Your task to perform on an android device: How big is a giraffe? Image 0: 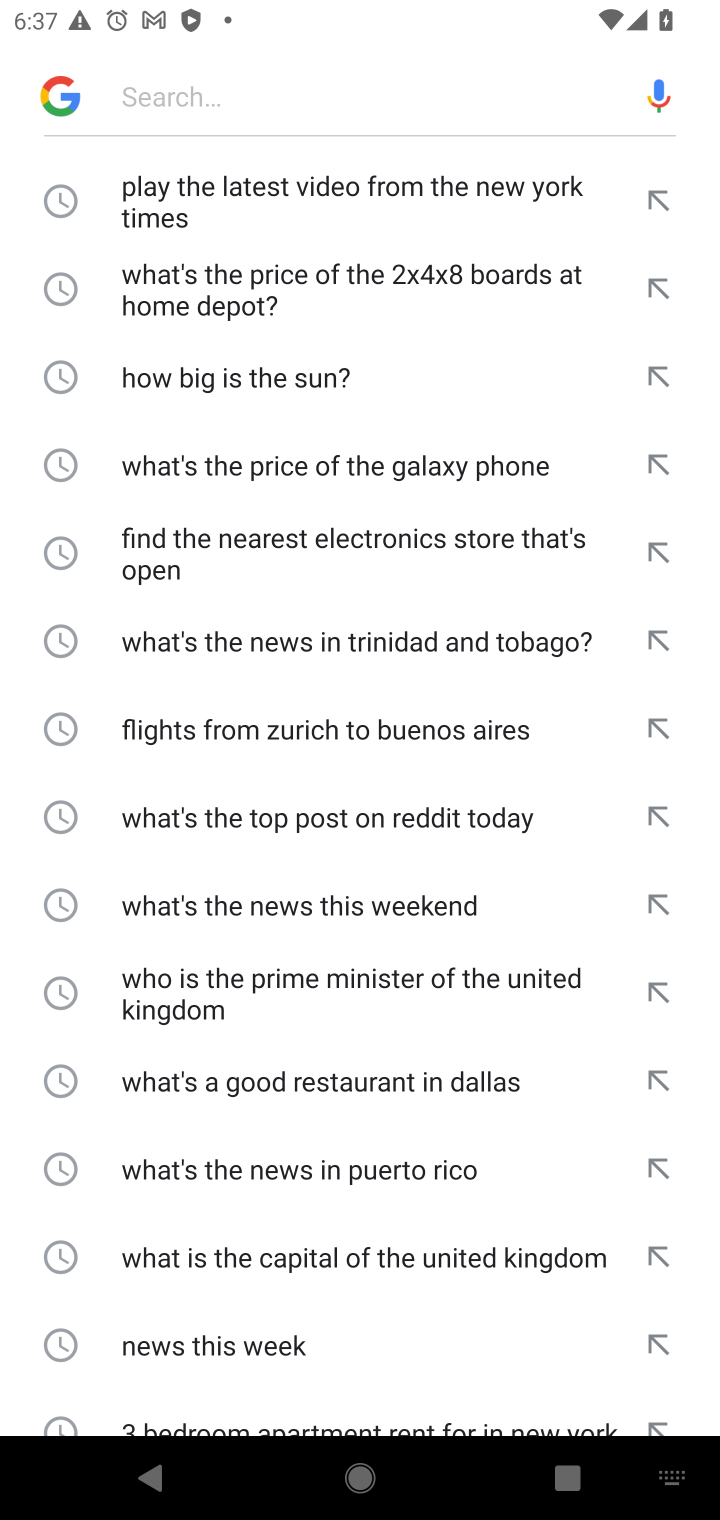
Step 0: press home button
Your task to perform on an android device: How big is a giraffe? Image 1: 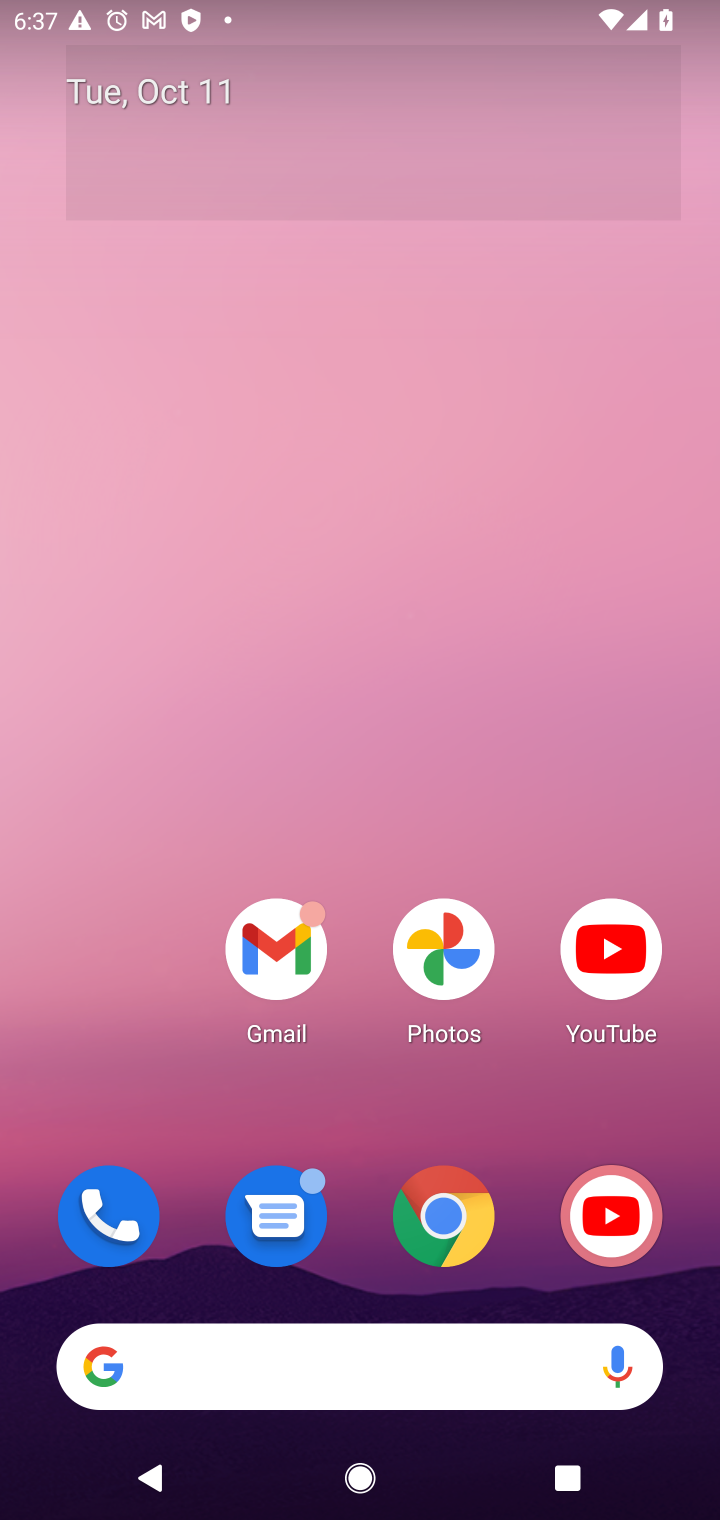
Step 1: click (429, 1250)
Your task to perform on an android device: How big is a giraffe? Image 2: 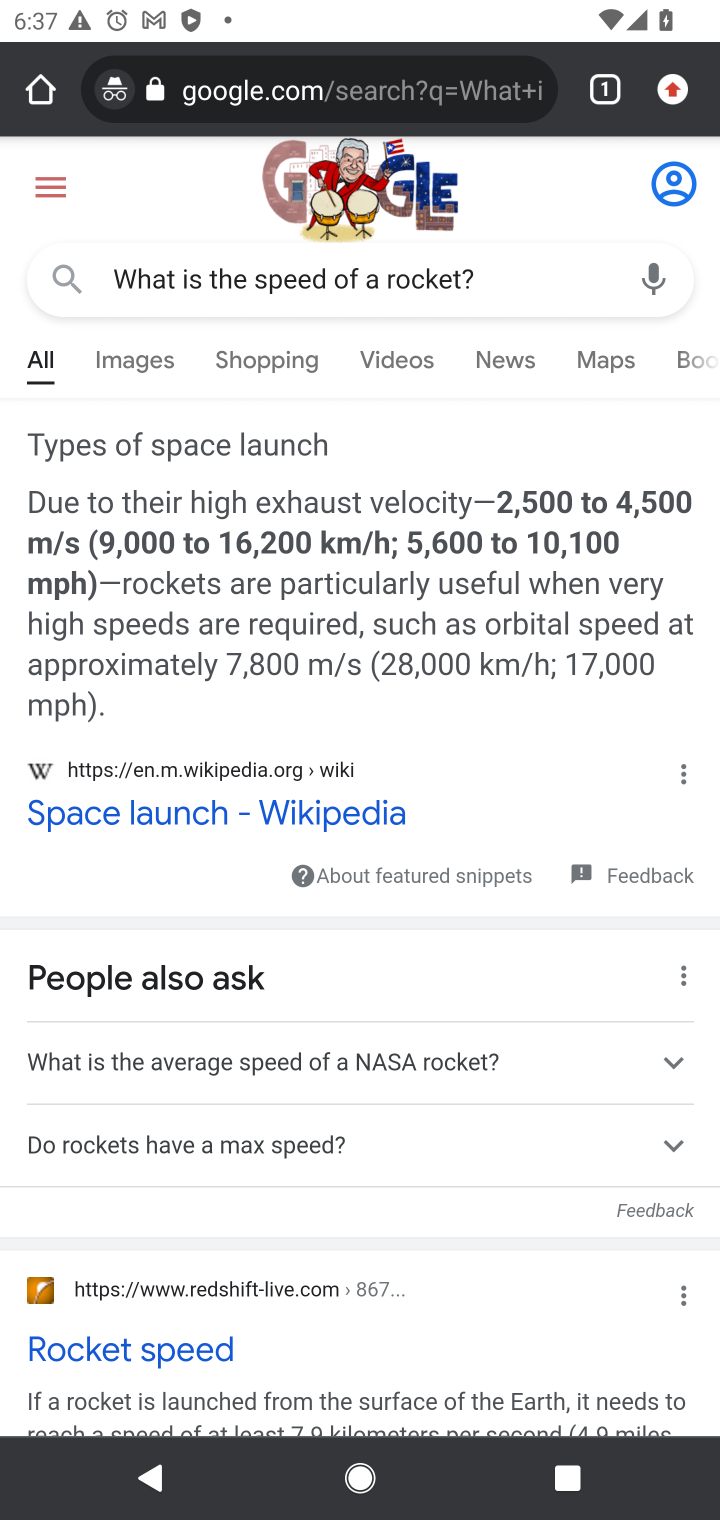
Step 2: click (502, 275)
Your task to perform on an android device: How big is a giraffe? Image 3: 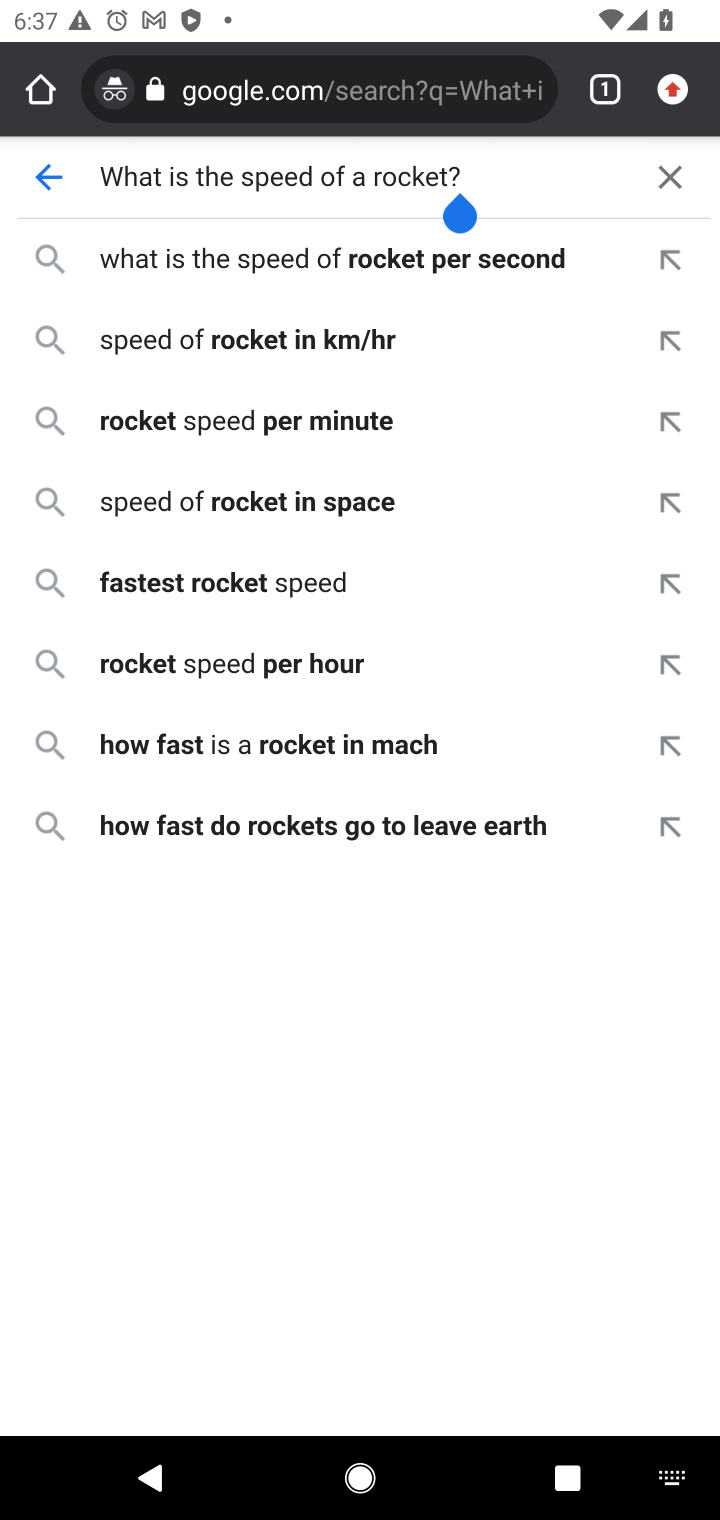
Step 3: click (677, 185)
Your task to perform on an android device: How big is a giraffe? Image 4: 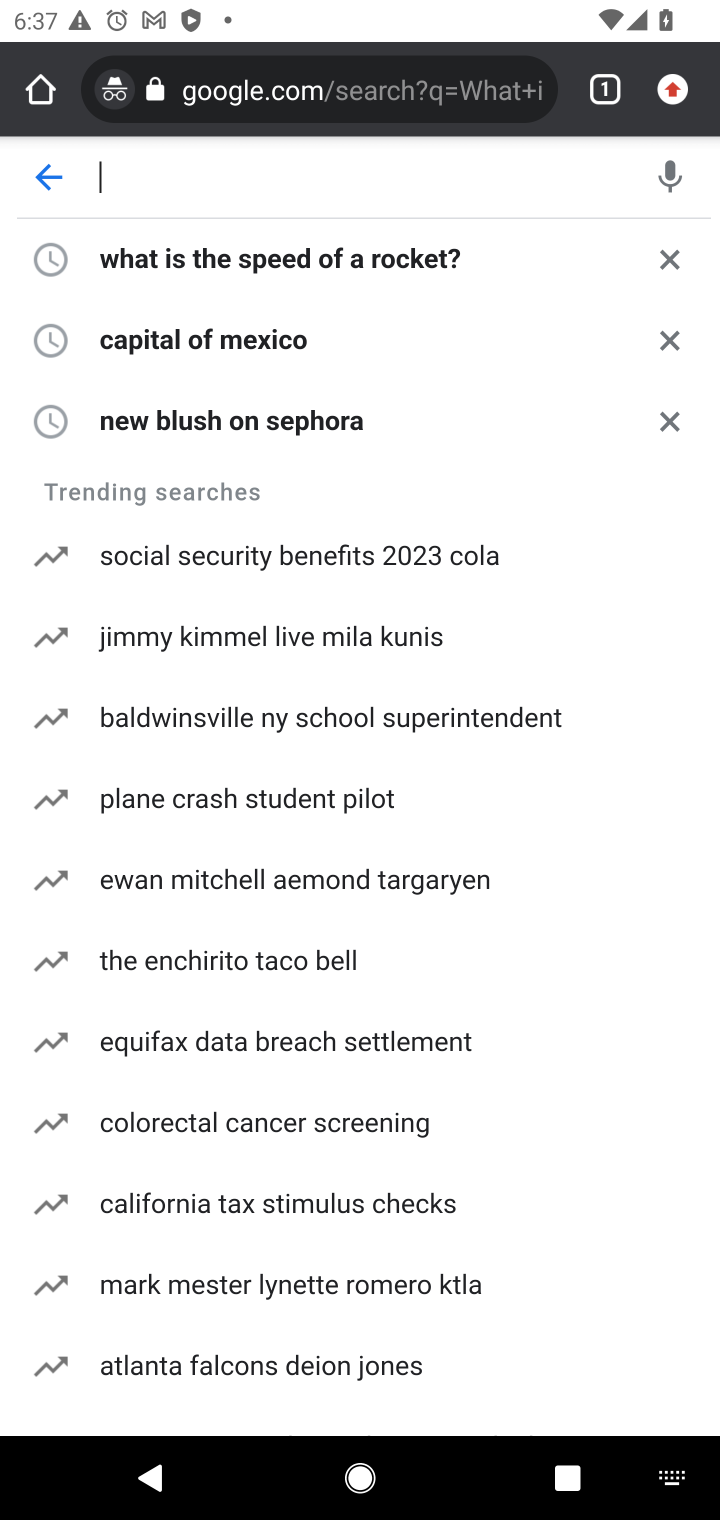
Step 4: type "How big is a giraffe?"
Your task to perform on an android device: How big is a giraffe? Image 5: 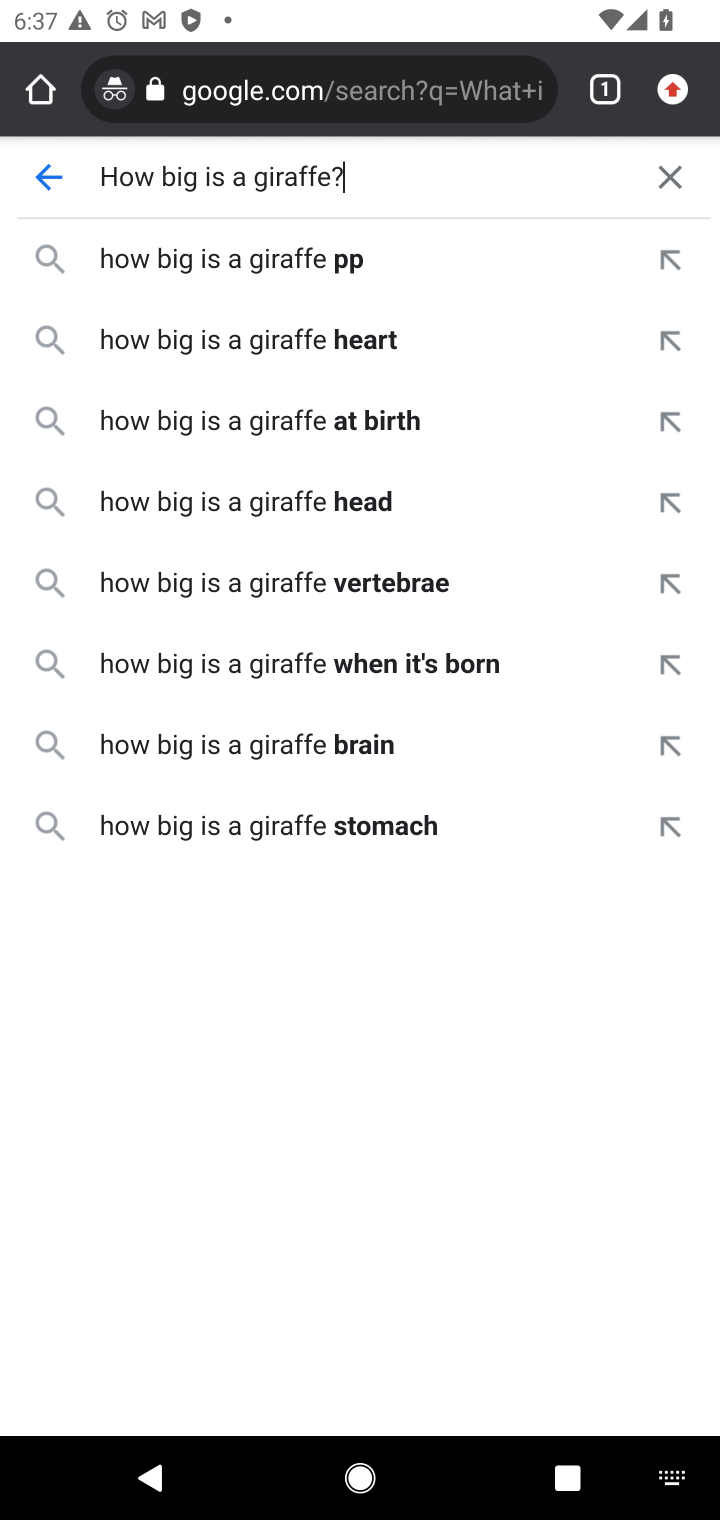
Step 5: press enter
Your task to perform on an android device: How big is a giraffe? Image 6: 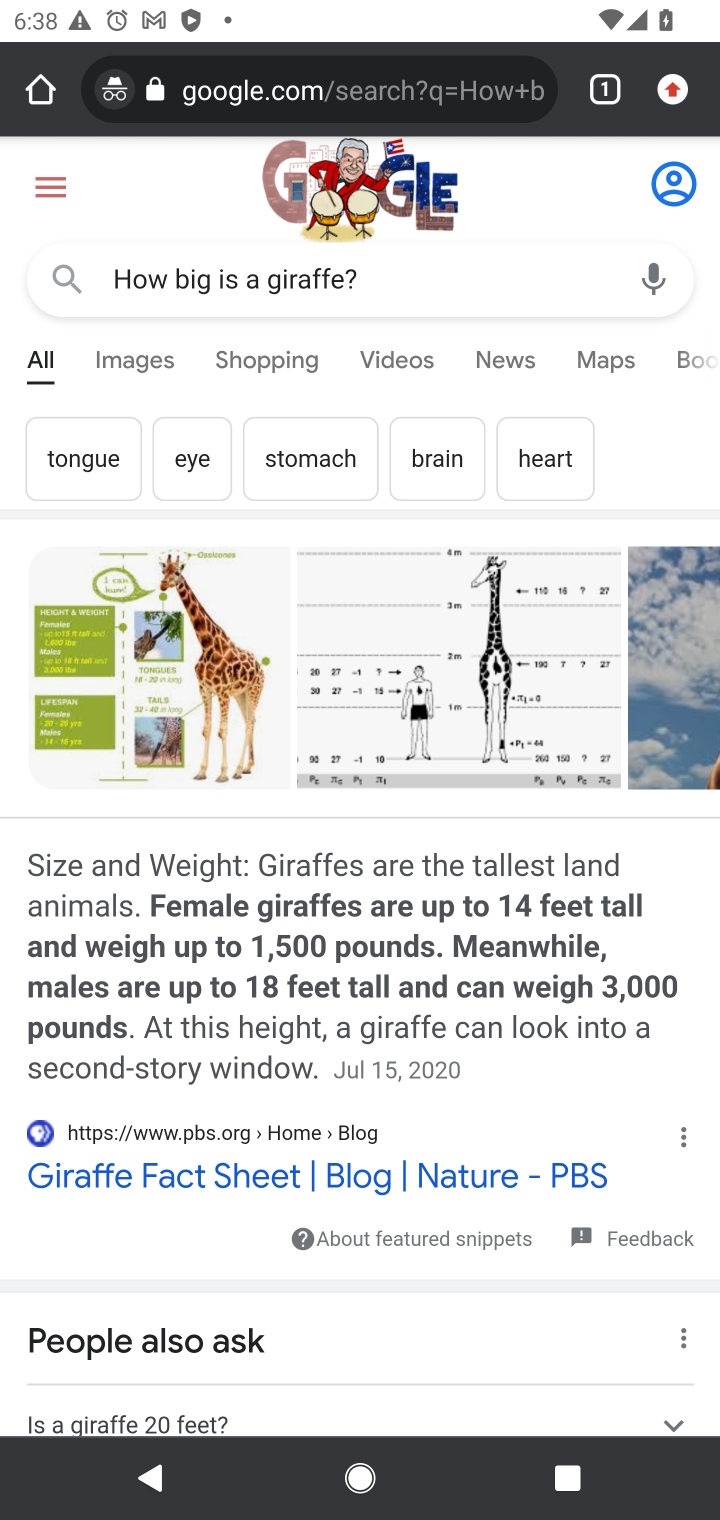
Step 6: task complete